Your task to perform on an android device: Turn on the flashlight Image 0: 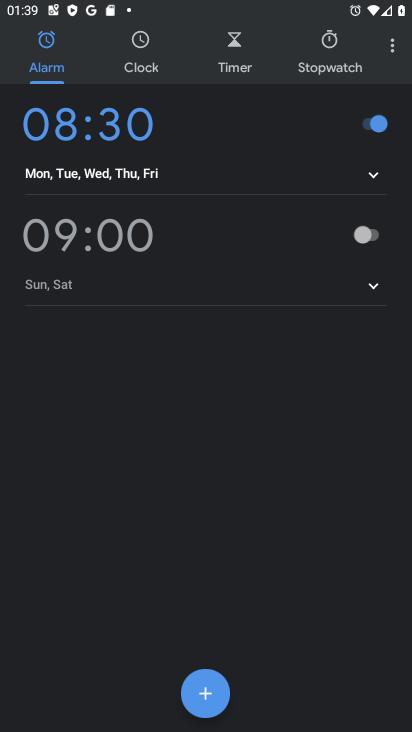
Step 0: press home button
Your task to perform on an android device: Turn on the flashlight Image 1: 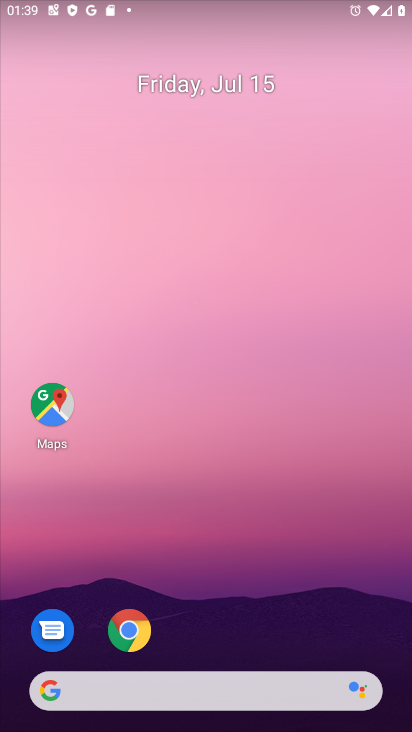
Step 1: drag from (303, 602) to (198, 155)
Your task to perform on an android device: Turn on the flashlight Image 2: 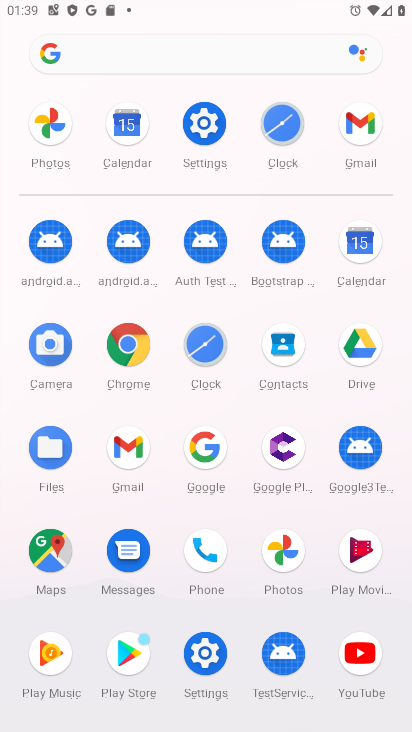
Step 2: click (198, 155)
Your task to perform on an android device: Turn on the flashlight Image 3: 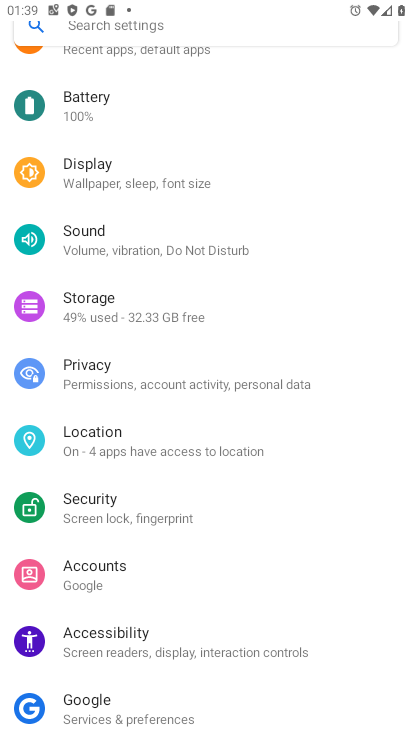
Step 3: task complete